Your task to perform on an android device: Go to Yahoo.com Image 0: 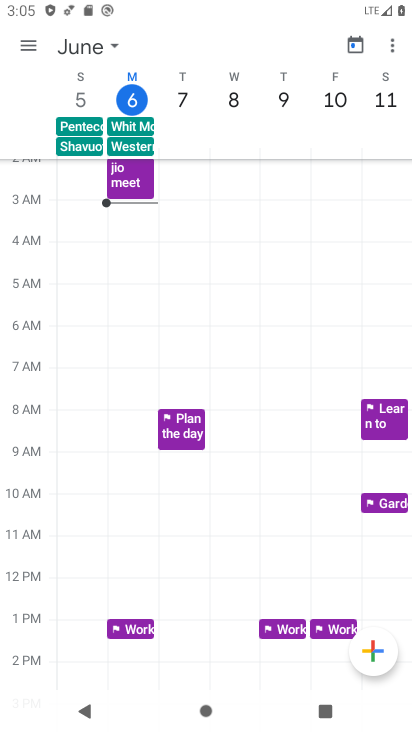
Step 0: press home button
Your task to perform on an android device: Go to Yahoo.com Image 1: 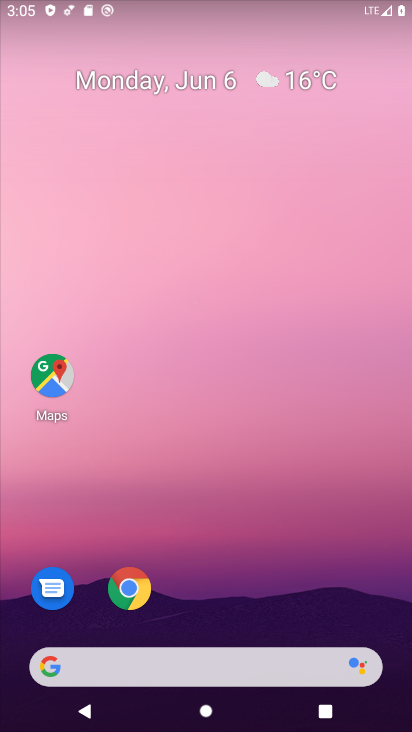
Step 1: click (120, 592)
Your task to perform on an android device: Go to Yahoo.com Image 2: 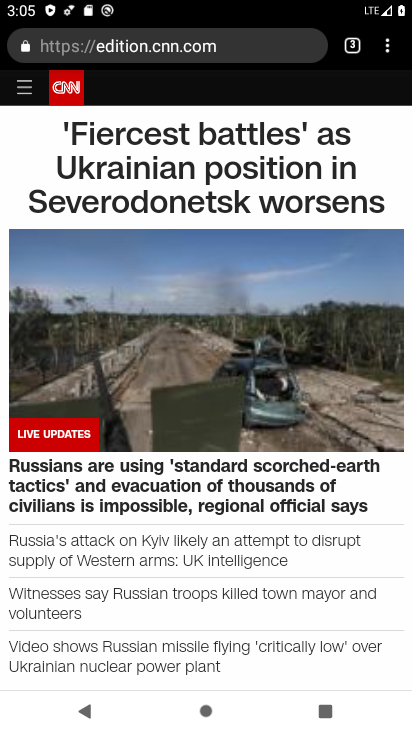
Step 2: click (176, 48)
Your task to perform on an android device: Go to Yahoo.com Image 3: 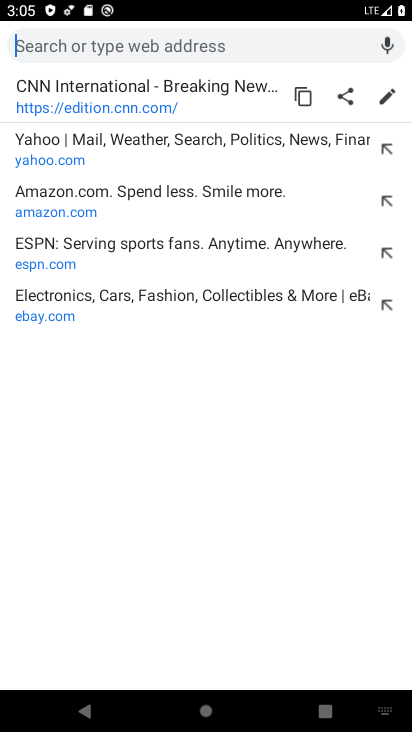
Step 3: click (207, 141)
Your task to perform on an android device: Go to Yahoo.com Image 4: 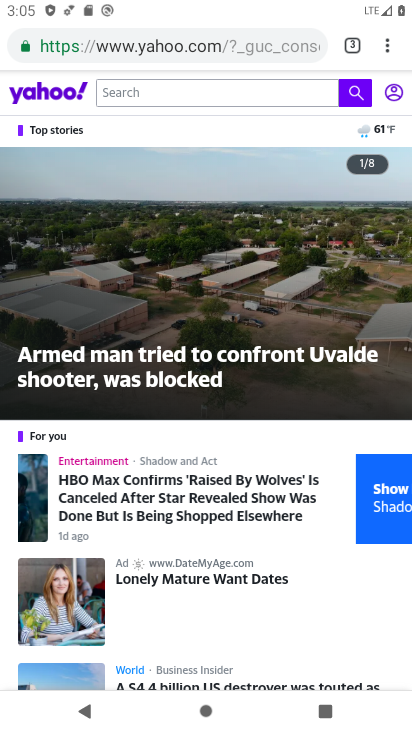
Step 4: task complete